Your task to perform on an android device: toggle sleep mode Image 0: 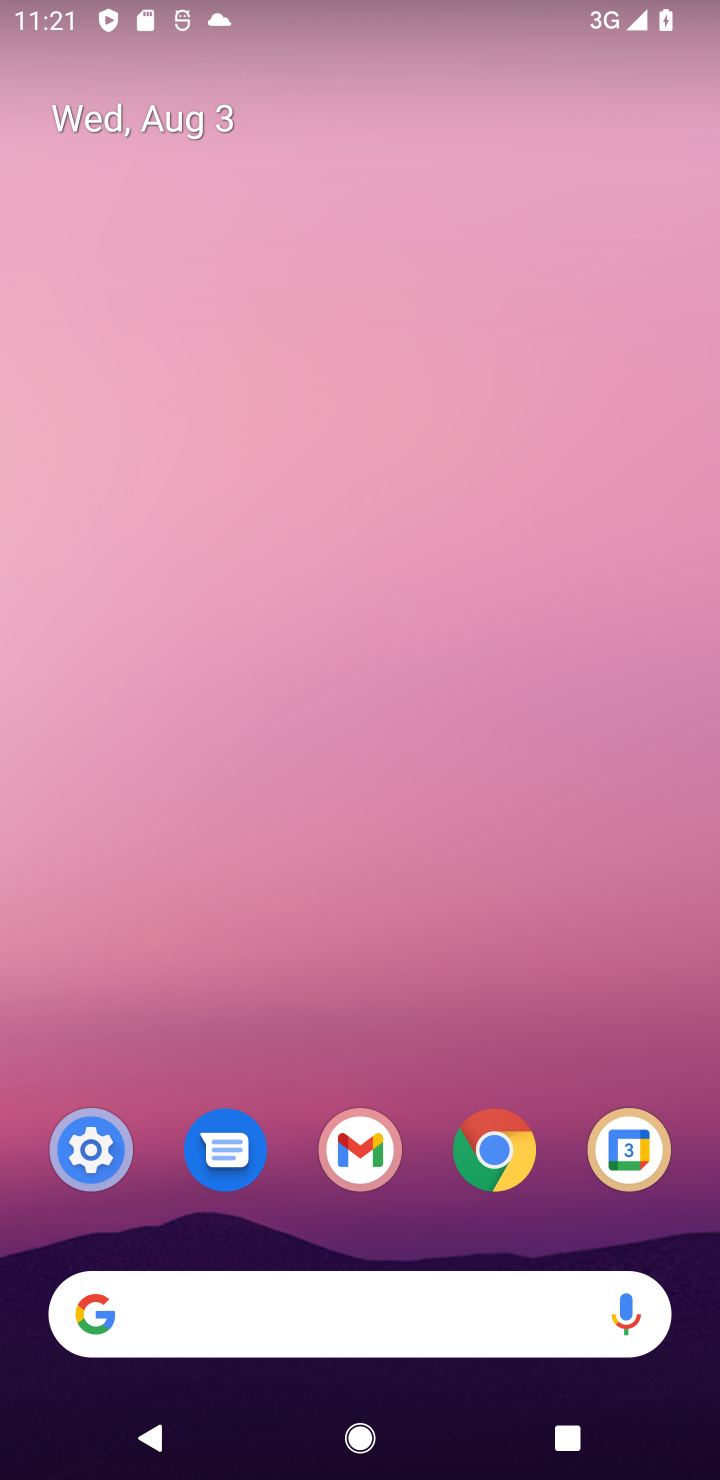
Step 0: drag from (520, 682) to (513, 154)
Your task to perform on an android device: toggle sleep mode Image 1: 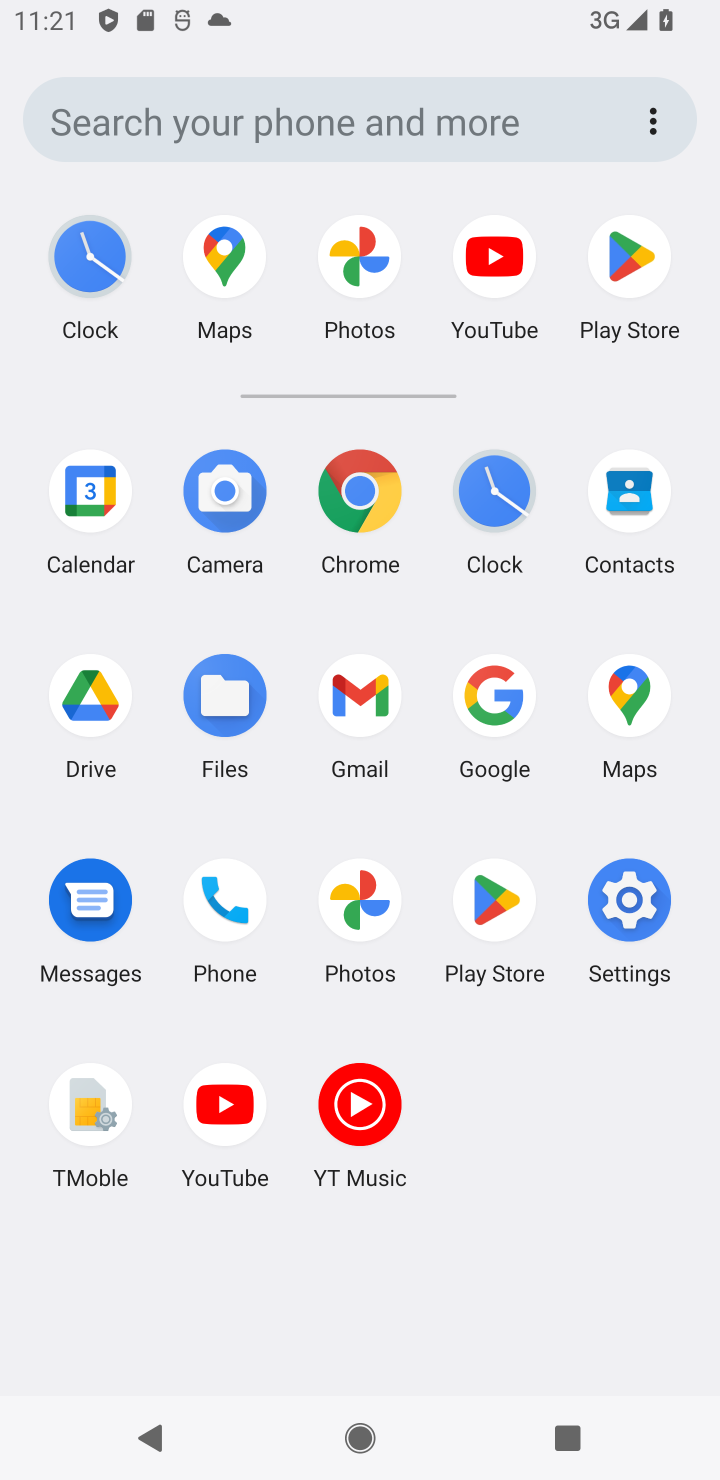
Step 1: click (626, 899)
Your task to perform on an android device: toggle sleep mode Image 2: 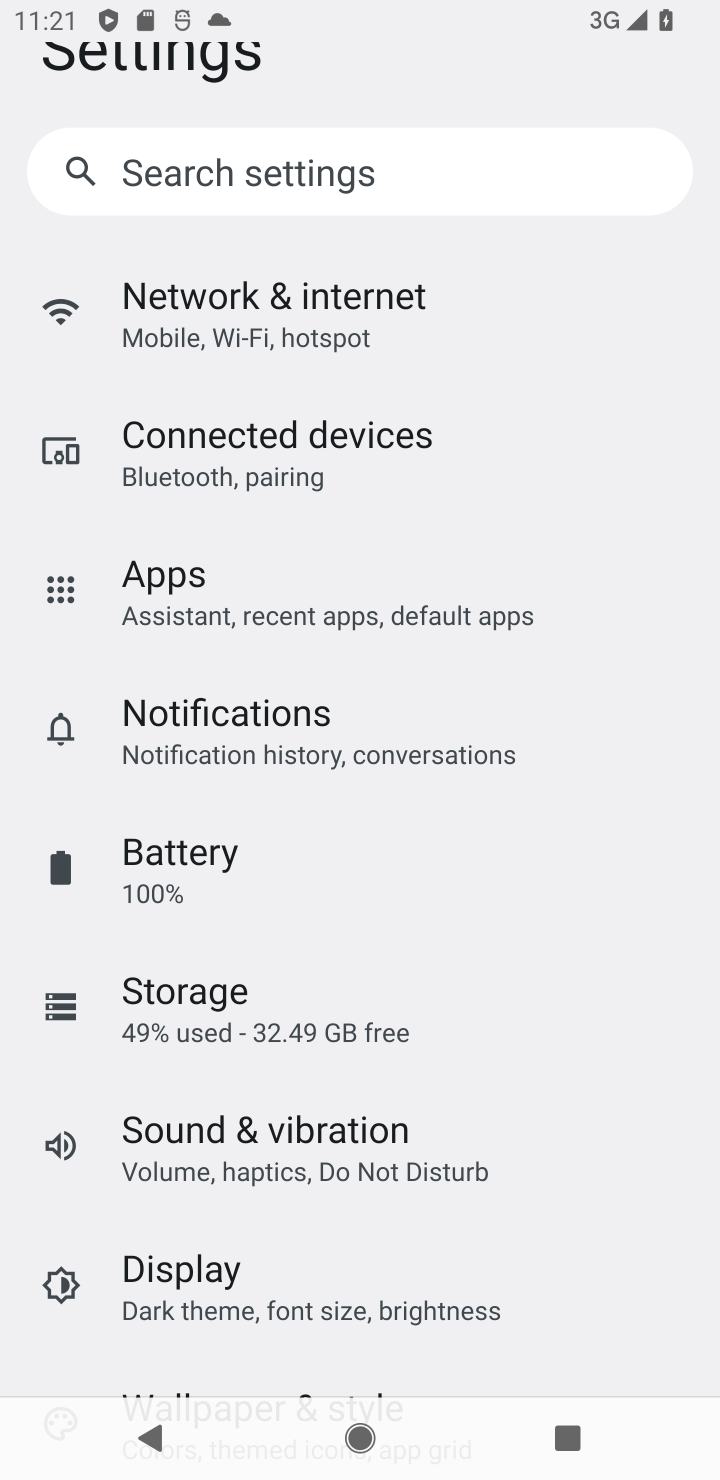
Step 2: drag from (604, 414) to (608, 764)
Your task to perform on an android device: toggle sleep mode Image 3: 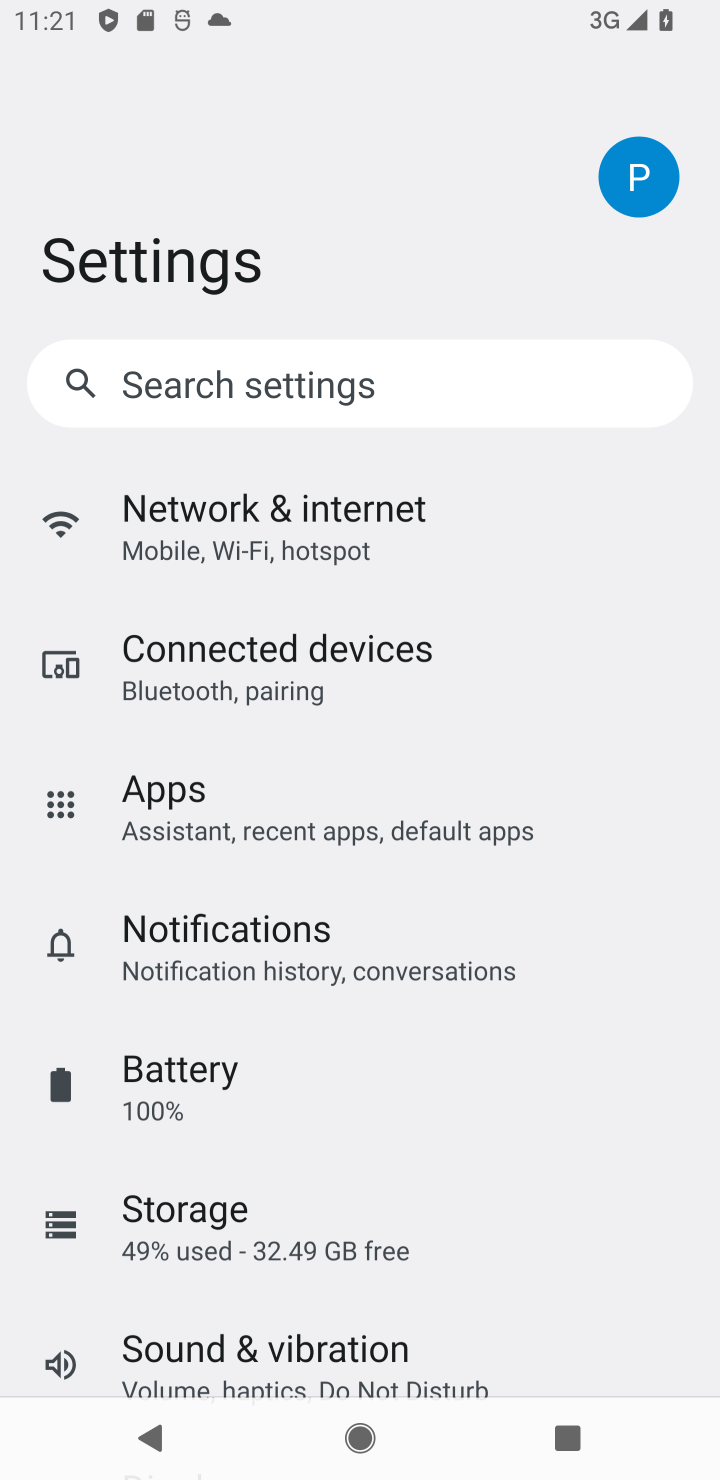
Step 3: drag from (582, 1176) to (593, 818)
Your task to perform on an android device: toggle sleep mode Image 4: 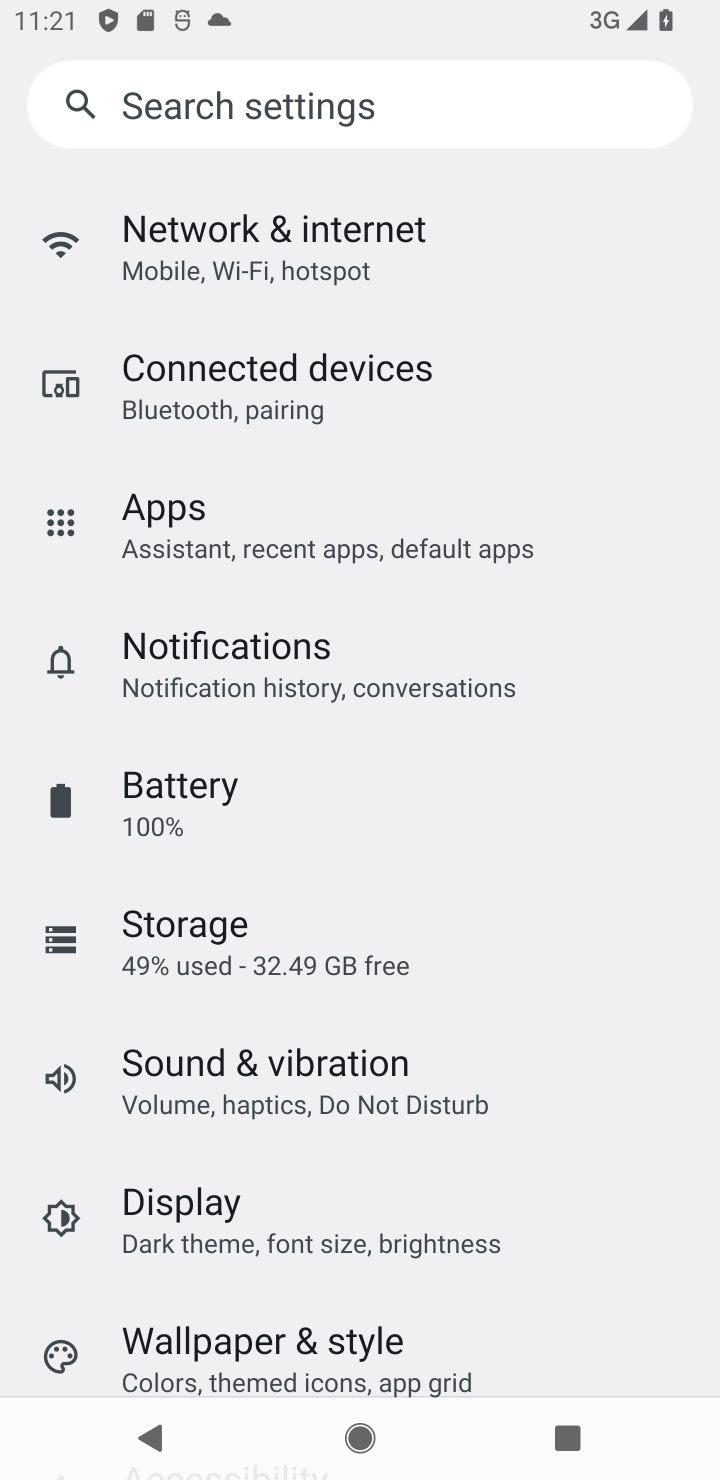
Step 4: drag from (539, 1180) to (576, 918)
Your task to perform on an android device: toggle sleep mode Image 5: 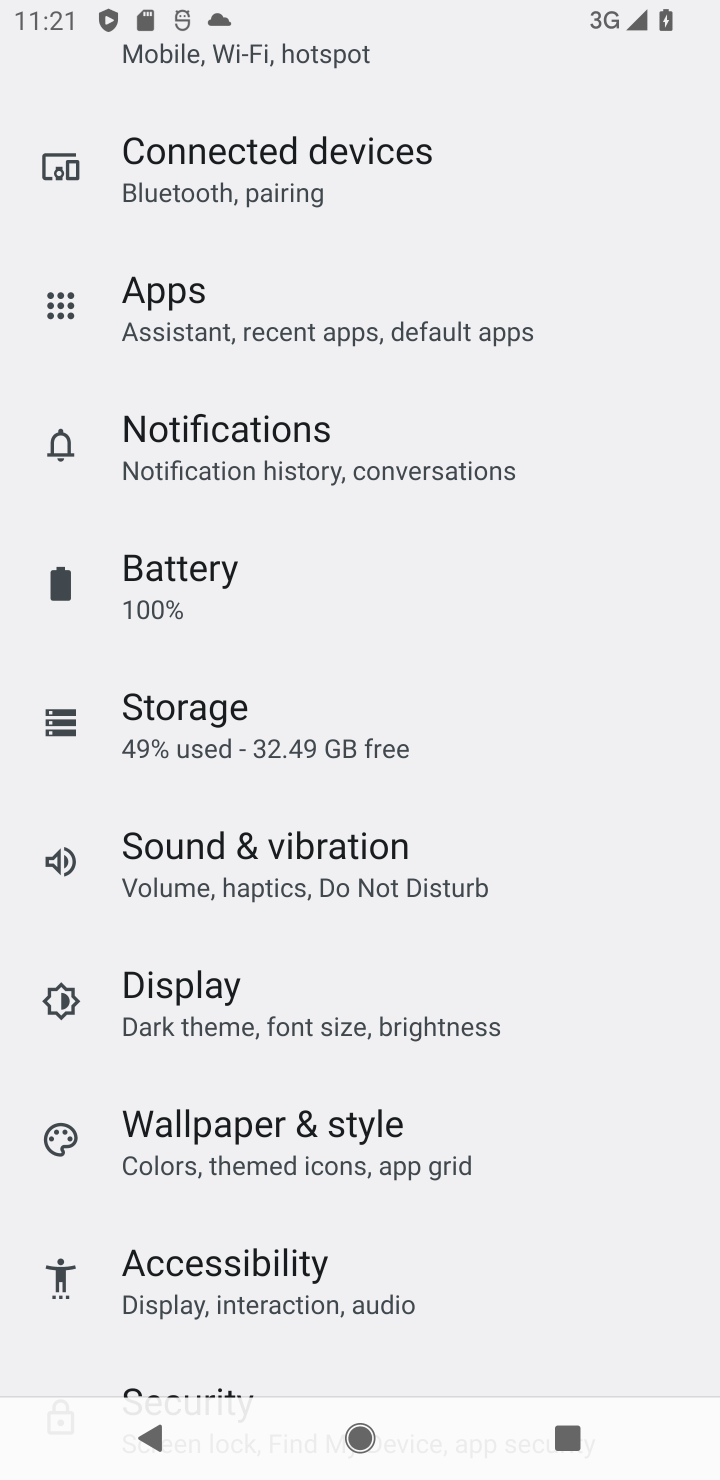
Step 5: drag from (558, 1210) to (594, 970)
Your task to perform on an android device: toggle sleep mode Image 6: 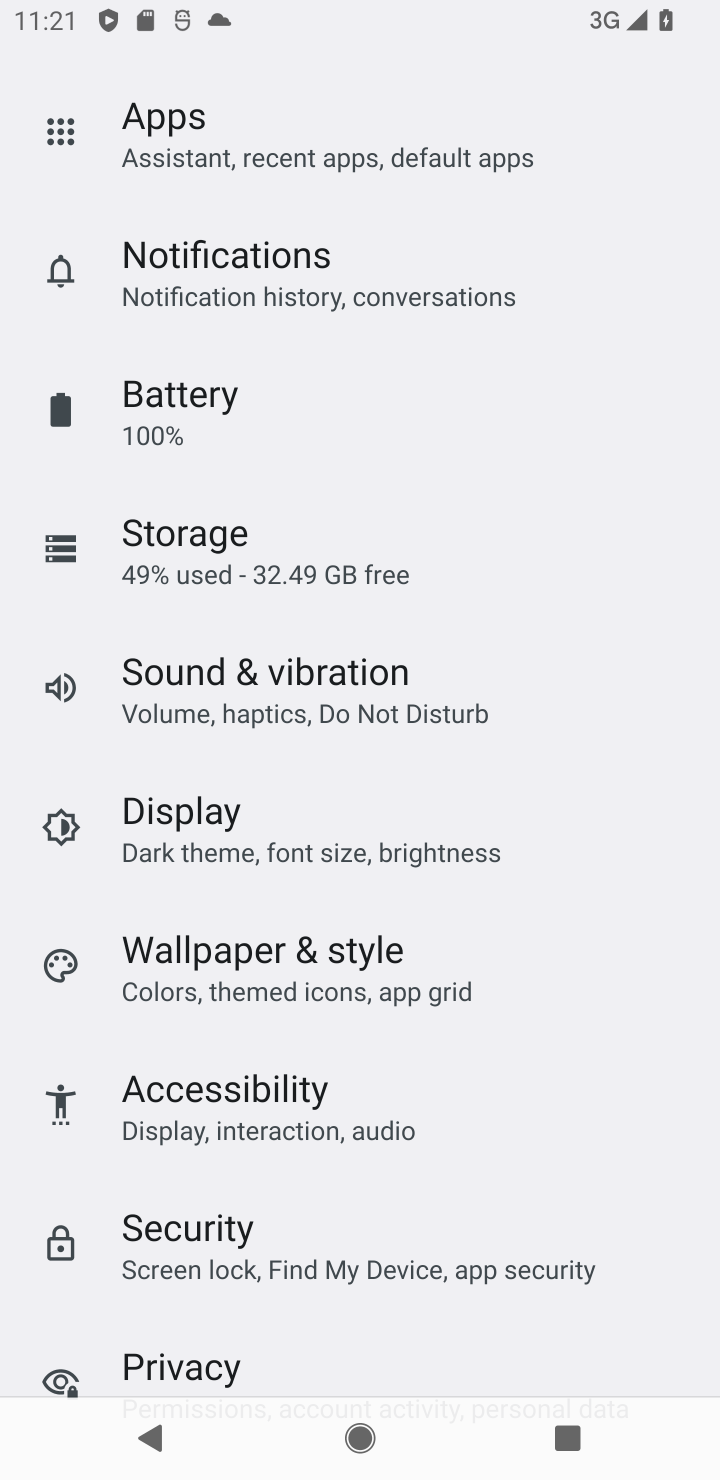
Step 6: drag from (571, 1108) to (584, 853)
Your task to perform on an android device: toggle sleep mode Image 7: 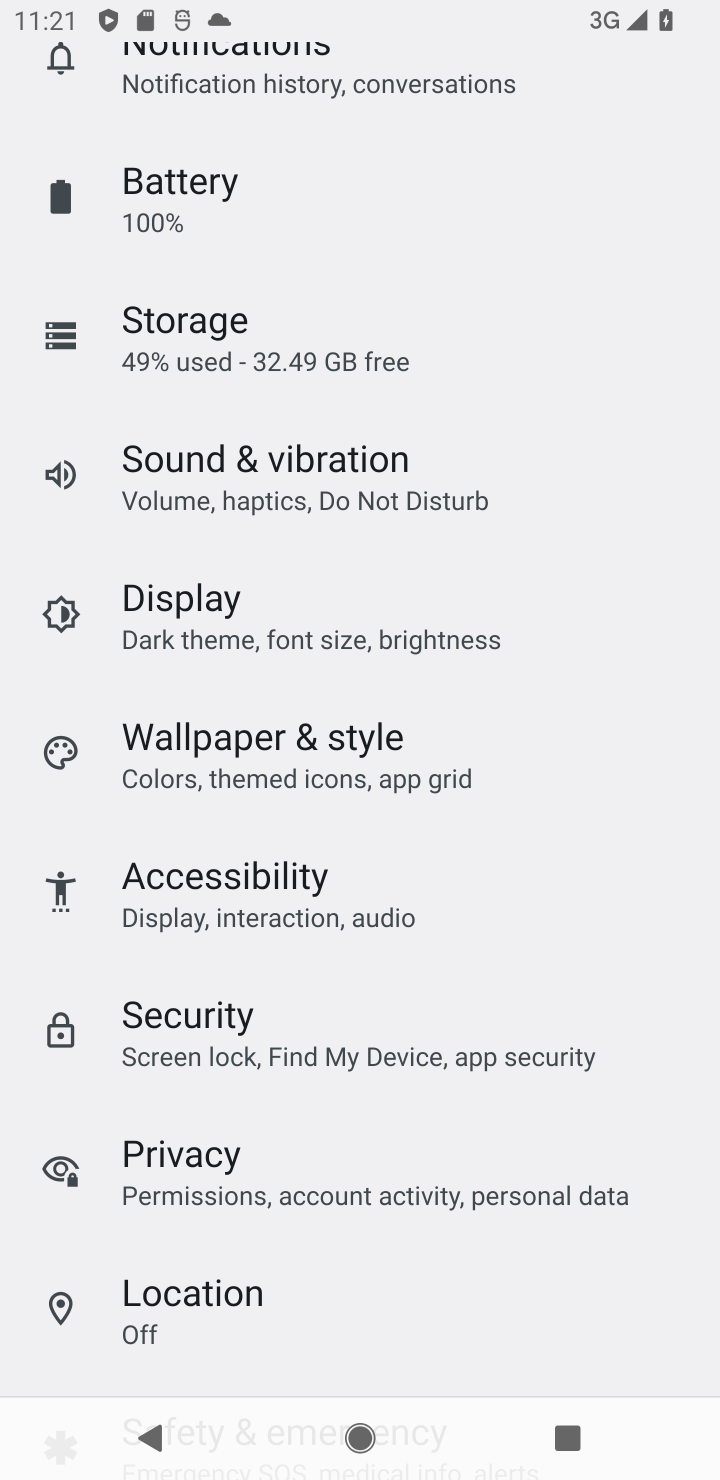
Step 7: drag from (576, 1283) to (589, 1019)
Your task to perform on an android device: toggle sleep mode Image 8: 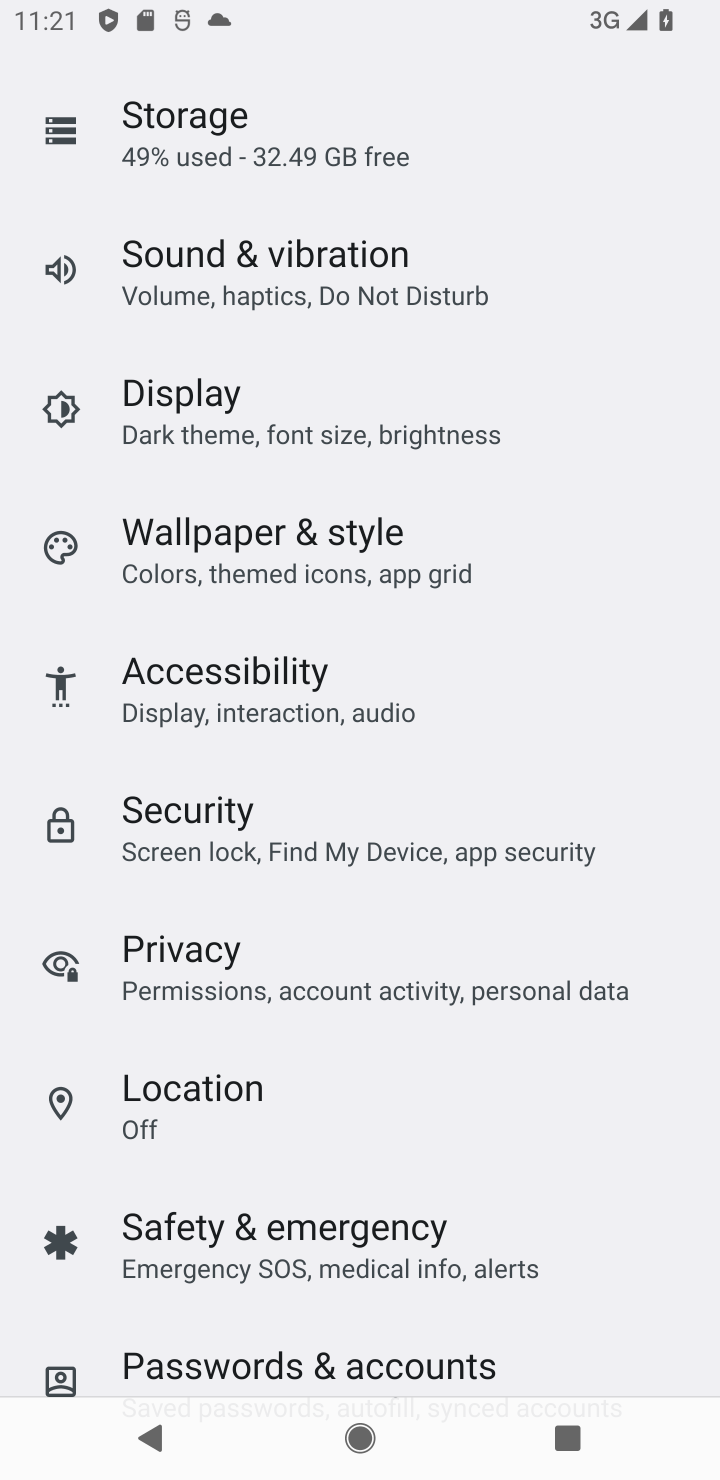
Step 8: drag from (589, 1209) to (594, 972)
Your task to perform on an android device: toggle sleep mode Image 9: 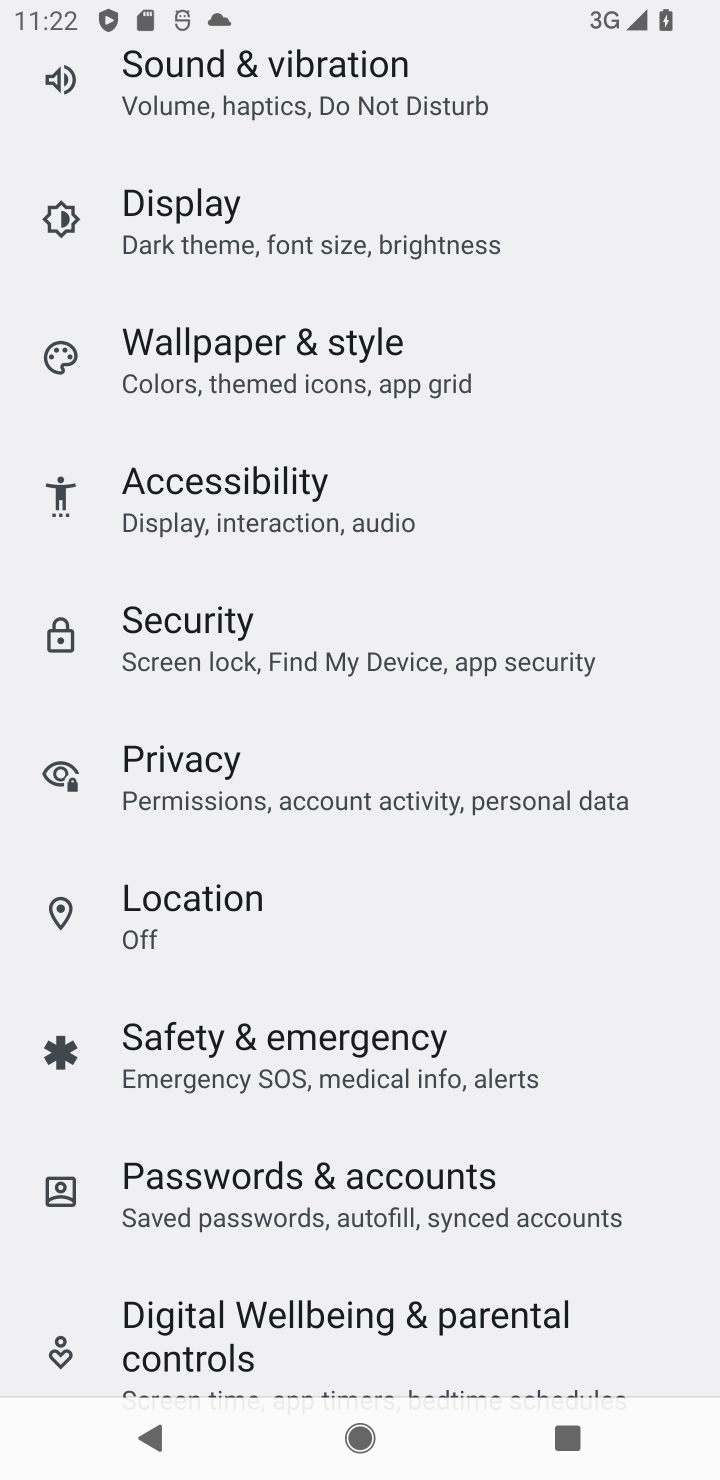
Step 9: drag from (609, 1256) to (620, 986)
Your task to perform on an android device: toggle sleep mode Image 10: 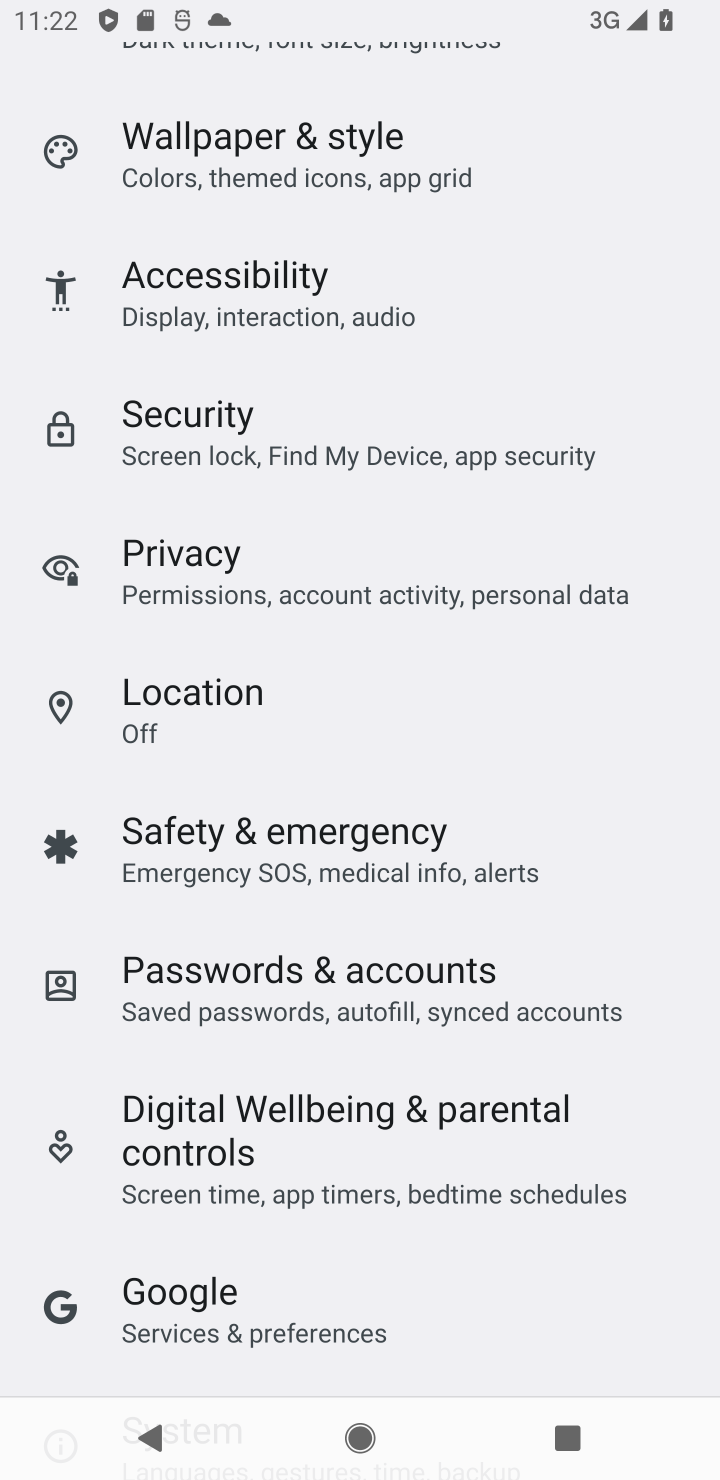
Step 10: drag from (633, 519) to (606, 982)
Your task to perform on an android device: toggle sleep mode Image 11: 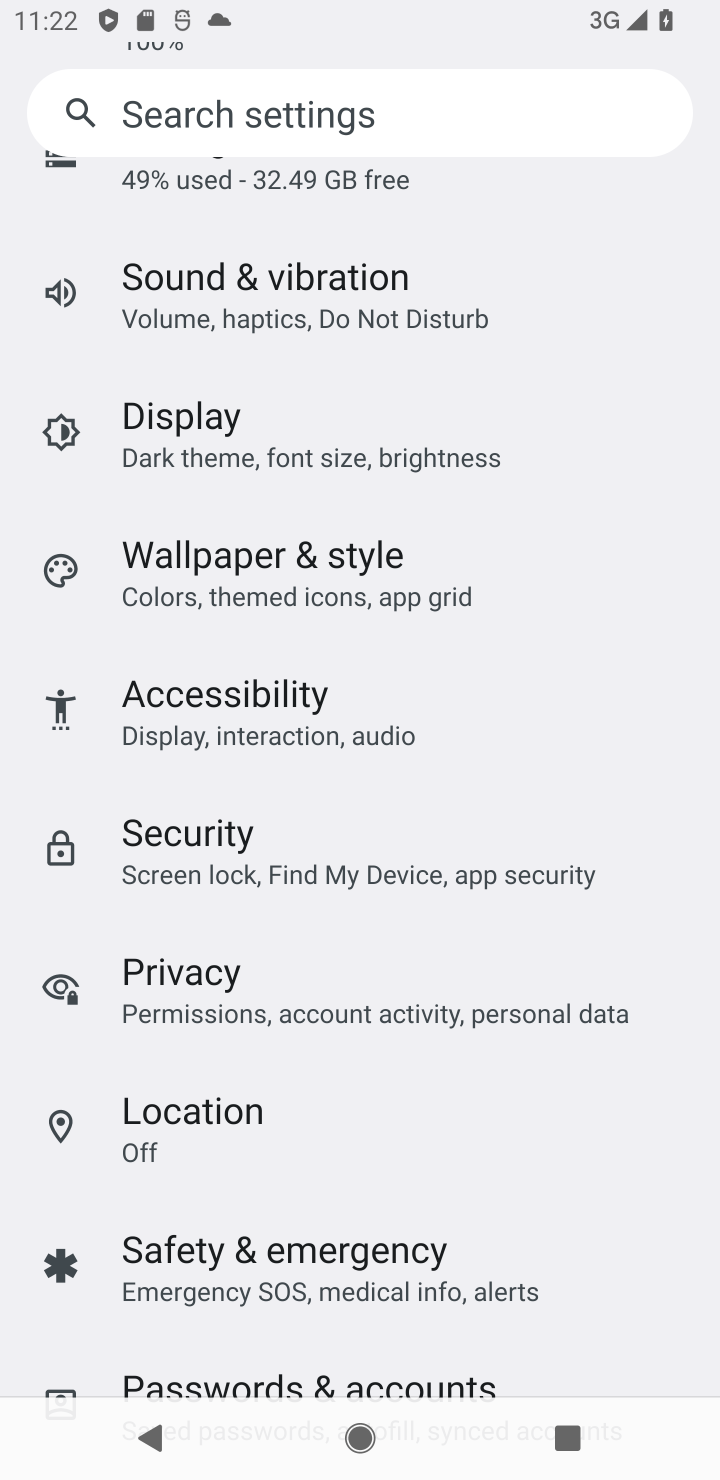
Step 11: click (509, 442)
Your task to perform on an android device: toggle sleep mode Image 12: 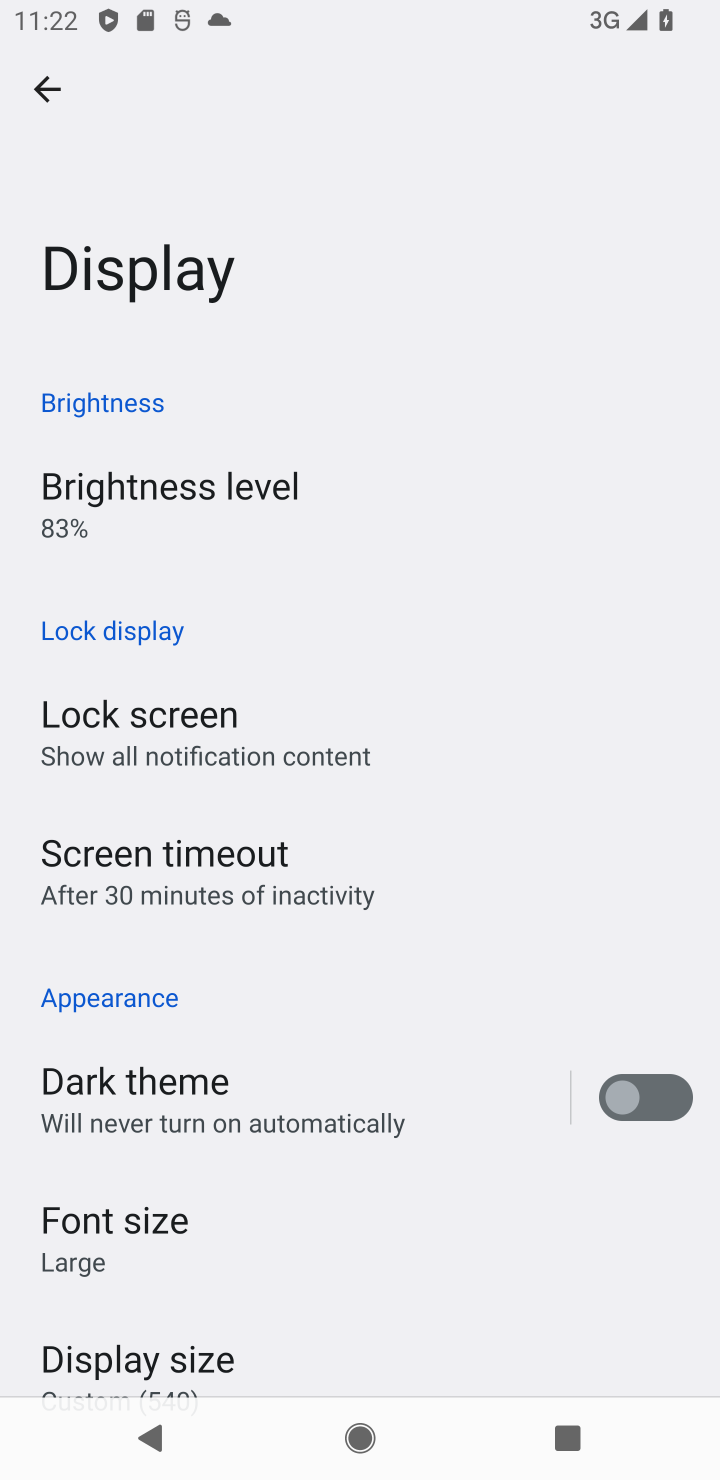
Step 12: task complete